Your task to perform on an android device: Go to Reddit.com Image 0: 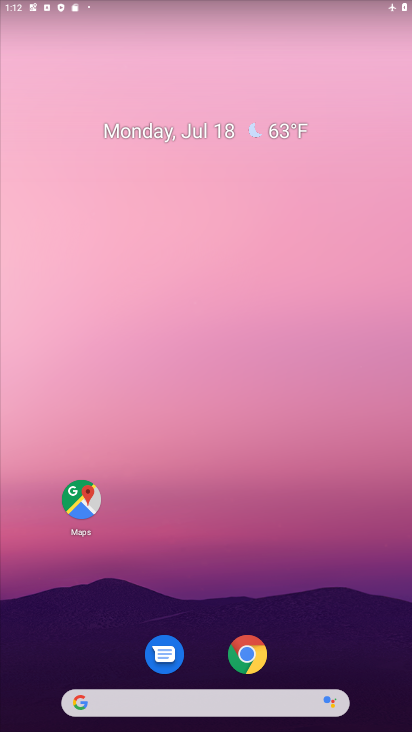
Step 0: click (257, 649)
Your task to perform on an android device: Go to Reddit.com Image 1: 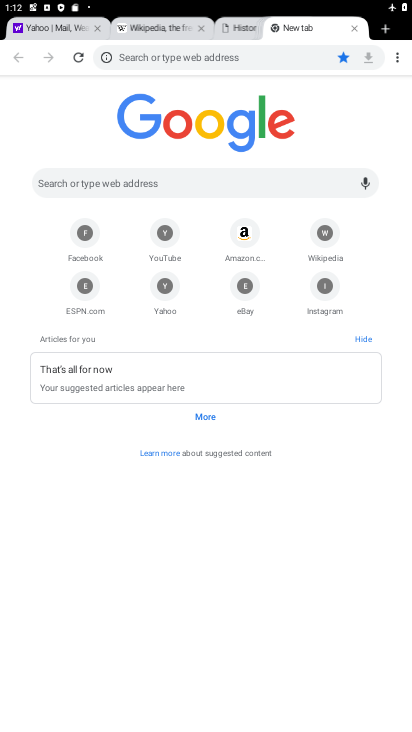
Step 1: click (277, 183)
Your task to perform on an android device: Go to Reddit.com Image 2: 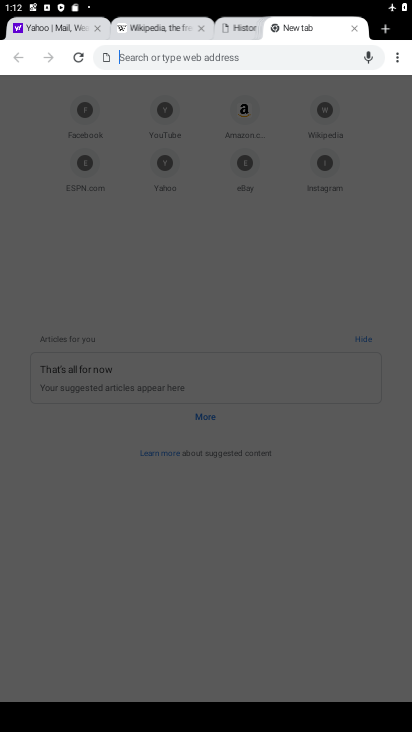
Step 2: type "Reddit.com"
Your task to perform on an android device: Go to Reddit.com Image 3: 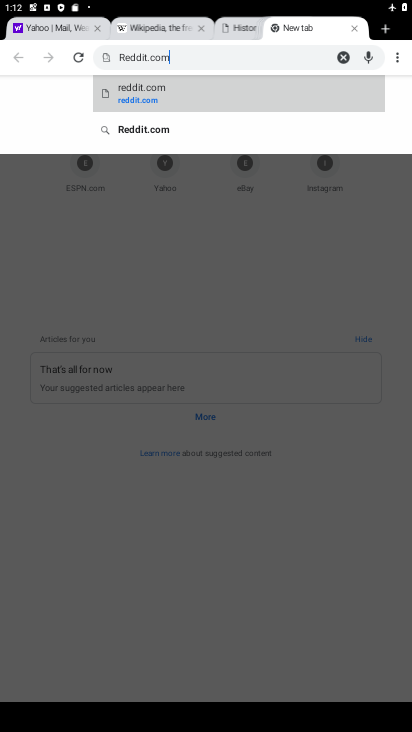
Step 3: type ""
Your task to perform on an android device: Go to Reddit.com Image 4: 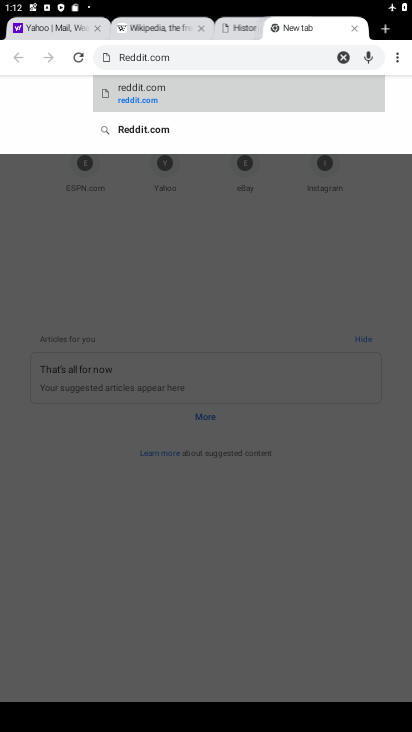
Step 4: click (173, 92)
Your task to perform on an android device: Go to Reddit.com Image 5: 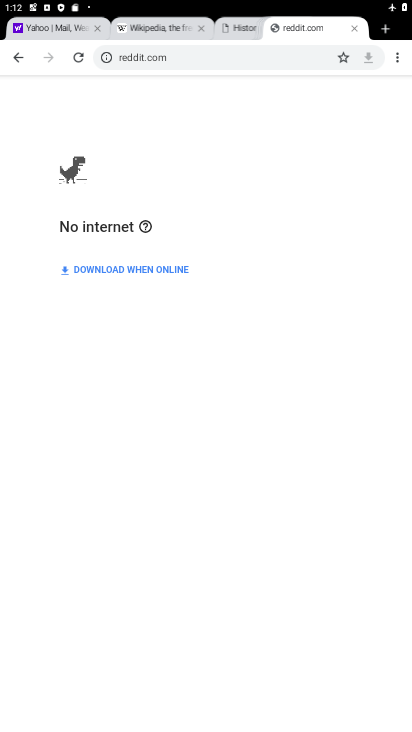
Step 5: task complete